Your task to perform on an android device: Show me the alarms in the clock app Image 0: 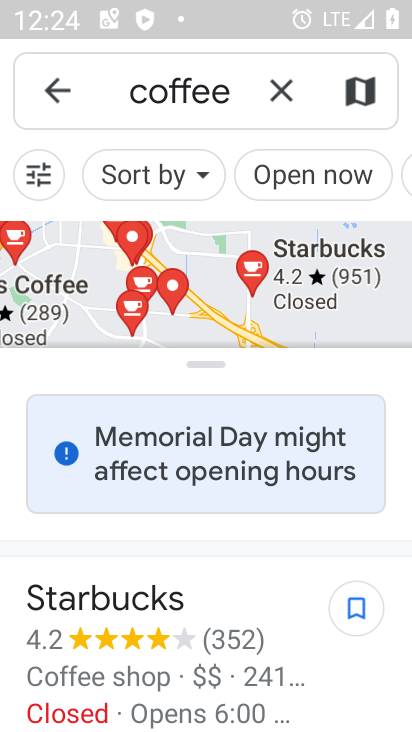
Step 0: press home button
Your task to perform on an android device: Show me the alarms in the clock app Image 1: 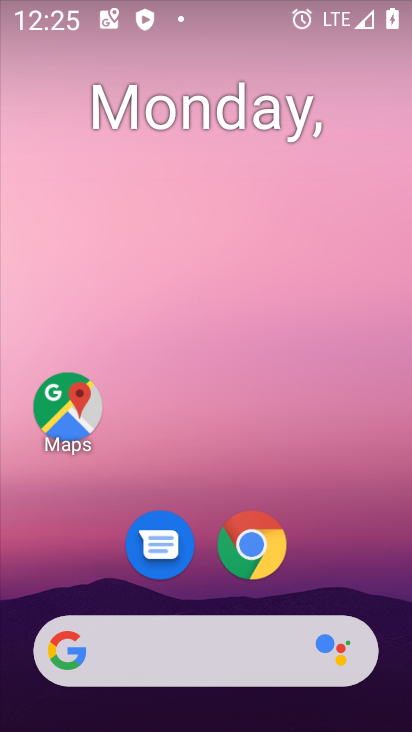
Step 1: drag from (371, 562) to (368, 109)
Your task to perform on an android device: Show me the alarms in the clock app Image 2: 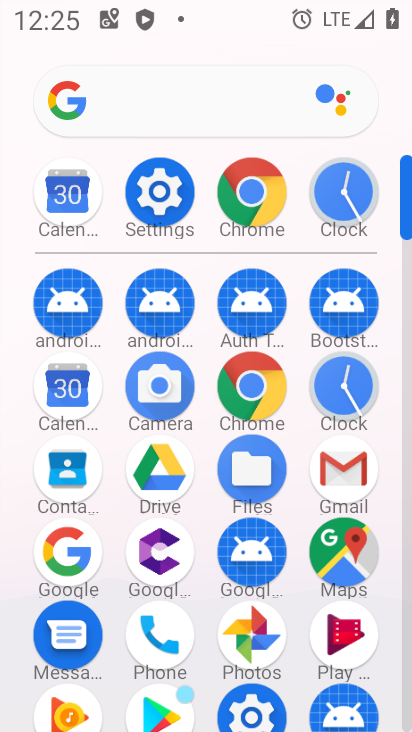
Step 2: click (353, 394)
Your task to perform on an android device: Show me the alarms in the clock app Image 3: 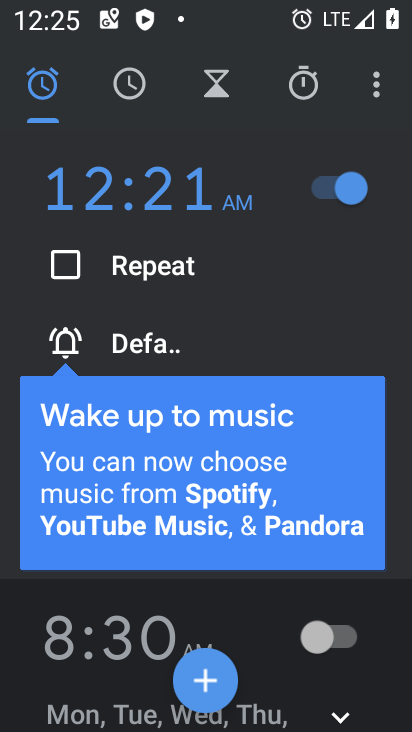
Step 3: task complete